Your task to perform on an android device: Open Google Maps and go to "Timeline" Image 0: 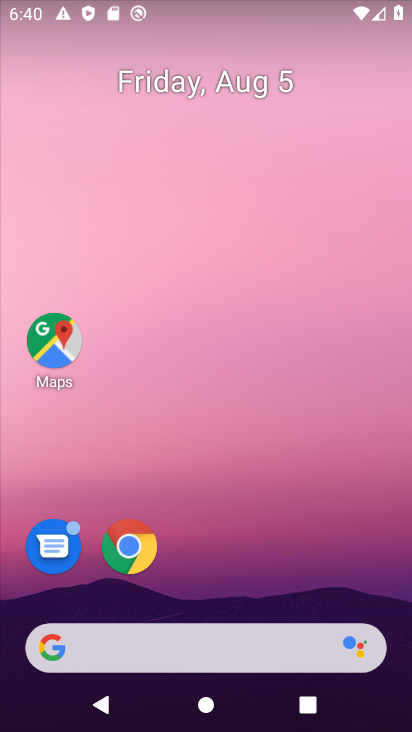
Step 0: drag from (172, 556) to (344, 11)
Your task to perform on an android device: Open Google Maps and go to "Timeline" Image 1: 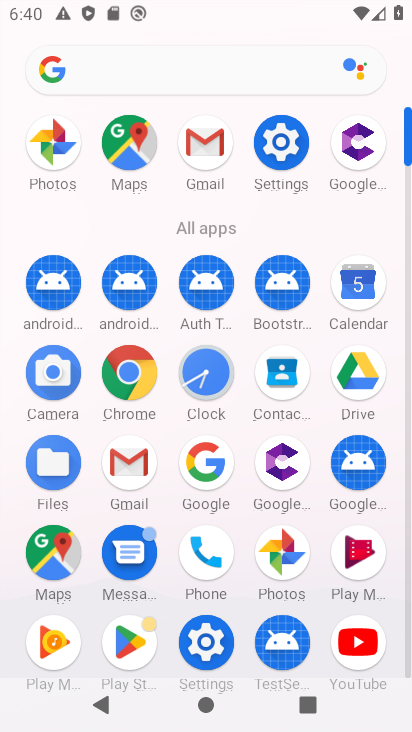
Step 1: click (51, 547)
Your task to perform on an android device: Open Google Maps and go to "Timeline" Image 2: 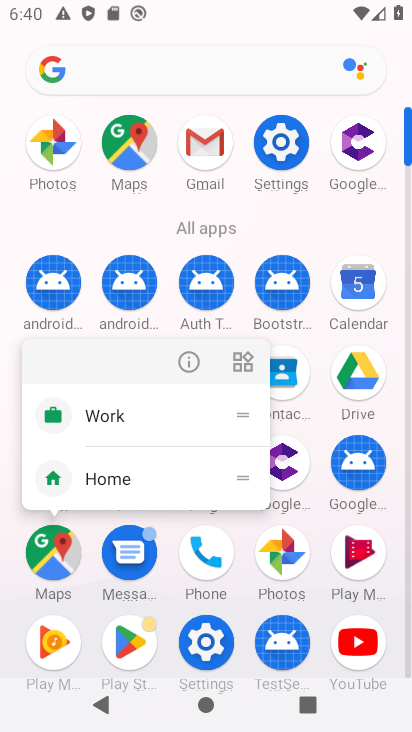
Step 2: click (192, 365)
Your task to perform on an android device: Open Google Maps and go to "Timeline" Image 3: 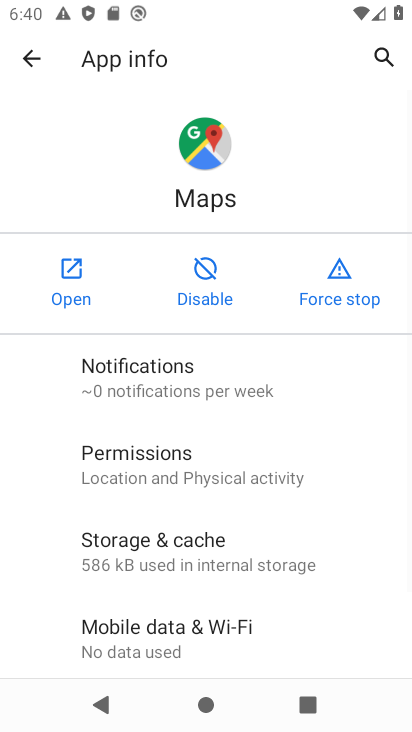
Step 3: click (86, 272)
Your task to perform on an android device: Open Google Maps and go to "Timeline" Image 4: 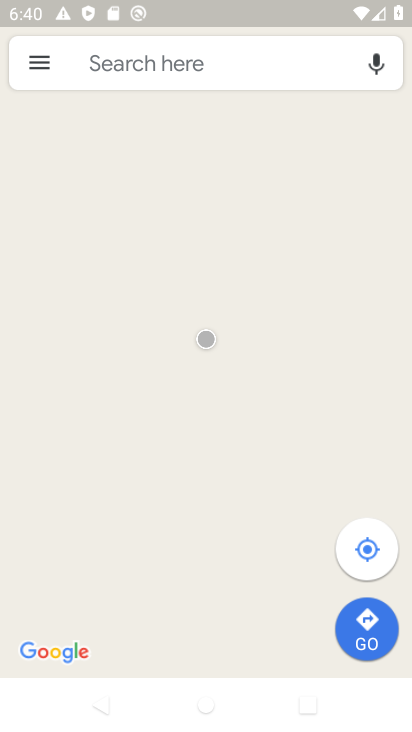
Step 4: click (38, 64)
Your task to perform on an android device: Open Google Maps and go to "Timeline" Image 5: 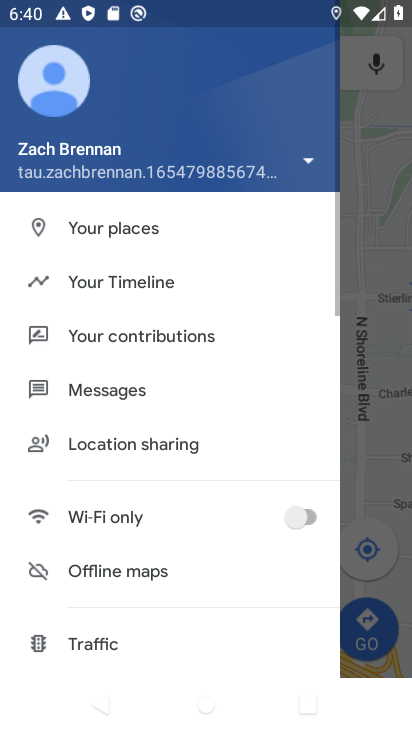
Step 5: drag from (151, 508) to (161, 115)
Your task to perform on an android device: Open Google Maps and go to "Timeline" Image 6: 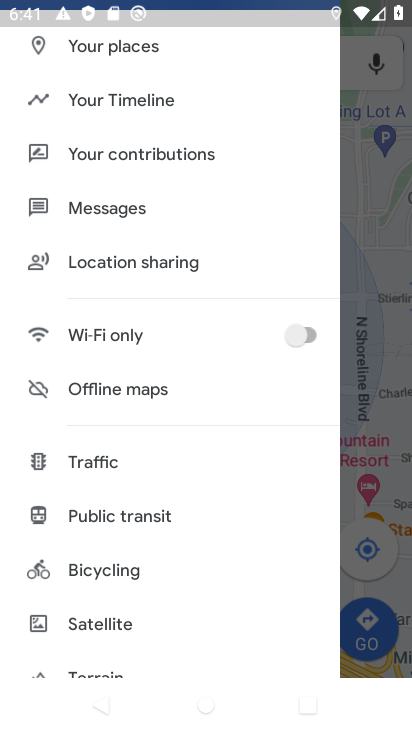
Step 6: drag from (191, 558) to (200, 283)
Your task to perform on an android device: Open Google Maps and go to "Timeline" Image 7: 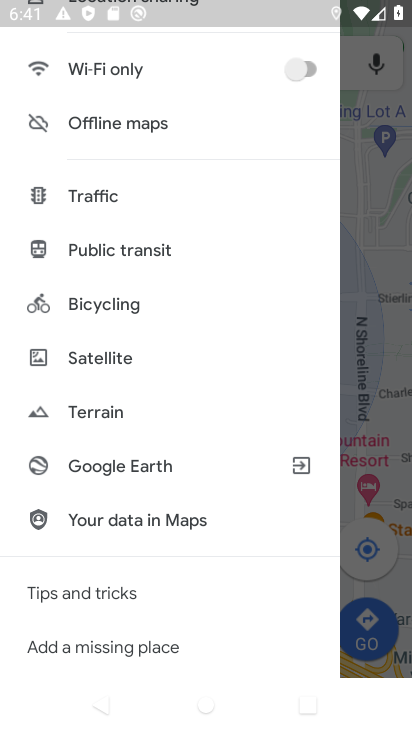
Step 7: drag from (137, 176) to (110, 584)
Your task to perform on an android device: Open Google Maps and go to "Timeline" Image 8: 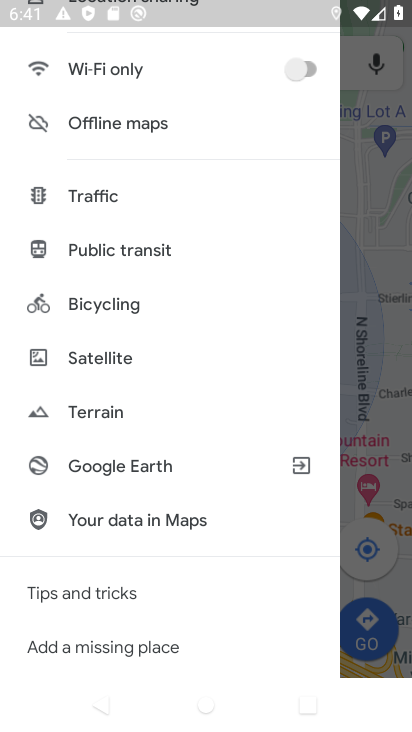
Step 8: drag from (141, 164) to (176, 671)
Your task to perform on an android device: Open Google Maps and go to "Timeline" Image 9: 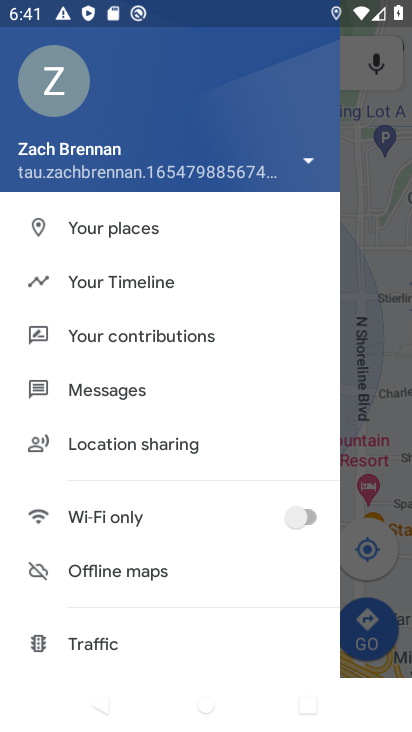
Step 9: click (110, 283)
Your task to perform on an android device: Open Google Maps and go to "Timeline" Image 10: 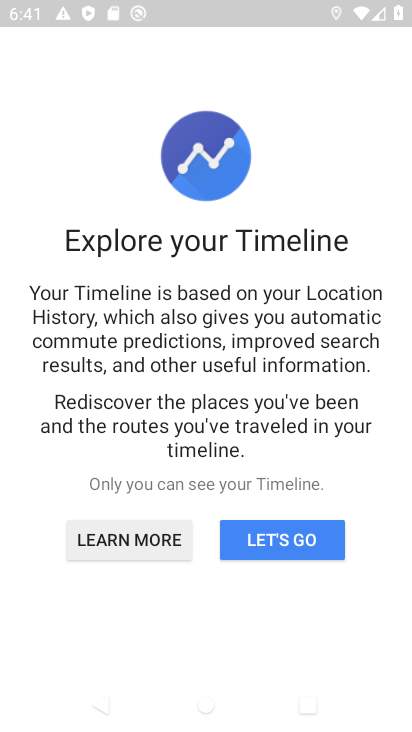
Step 10: click (301, 535)
Your task to perform on an android device: Open Google Maps and go to "Timeline" Image 11: 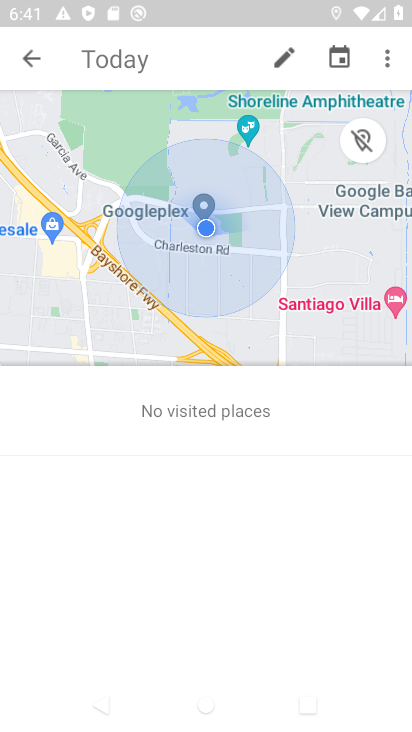
Step 11: task complete